Your task to perform on an android device: turn off location history Image 0: 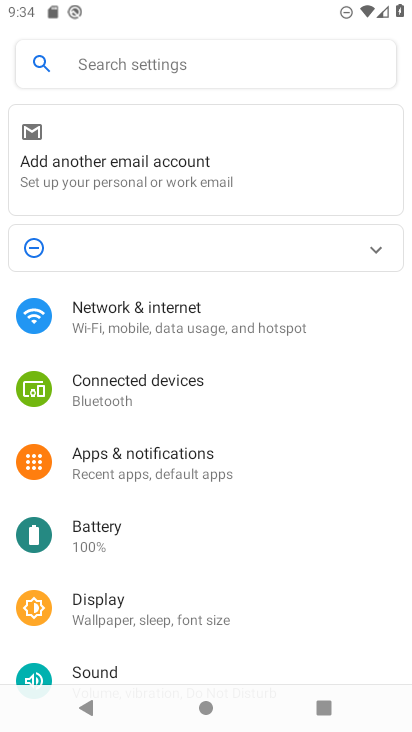
Step 0: drag from (196, 627) to (236, 156)
Your task to perform on an android device: turn off location history Image 1: 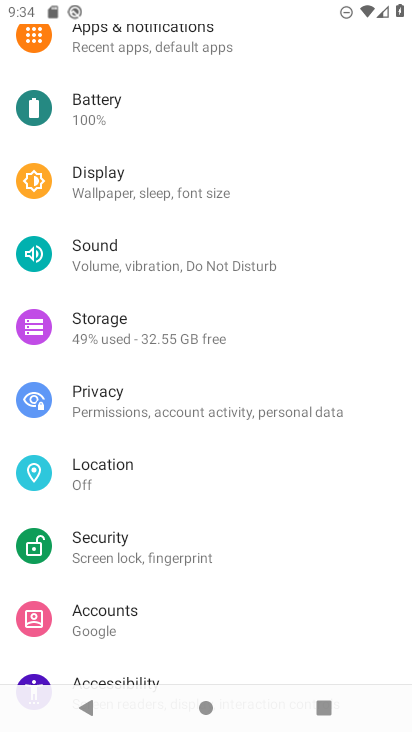
Step 1: click (143, 472)
Your task to perform on an android device: turn off location history Image 2: 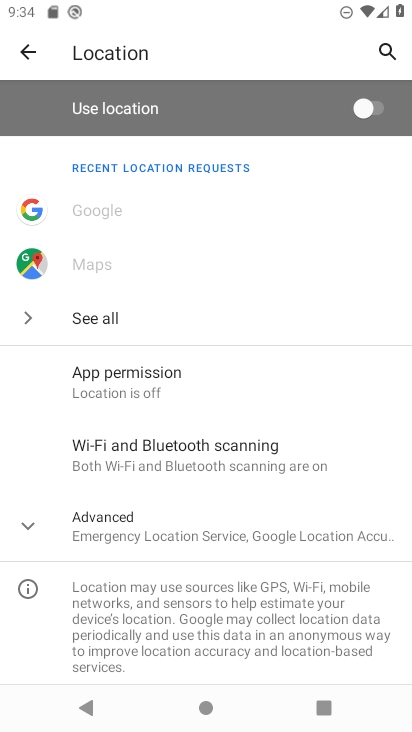
Step 2: click (110, 520)
Your task to perform on an android device: turn off location history Image 3: 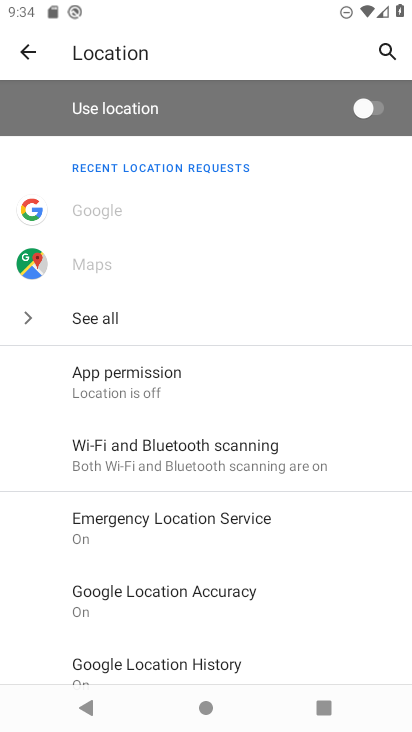
Step 3: drag from (226, 632) to (241, 300)
Your task to perform on an android device: turn off location history Image 4: 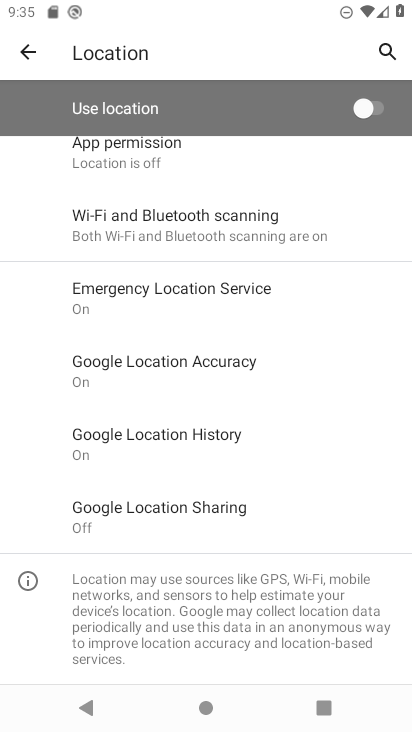
Step 4: click (215, 447)
Your task to perform on an android device: turn off location history Image 5: 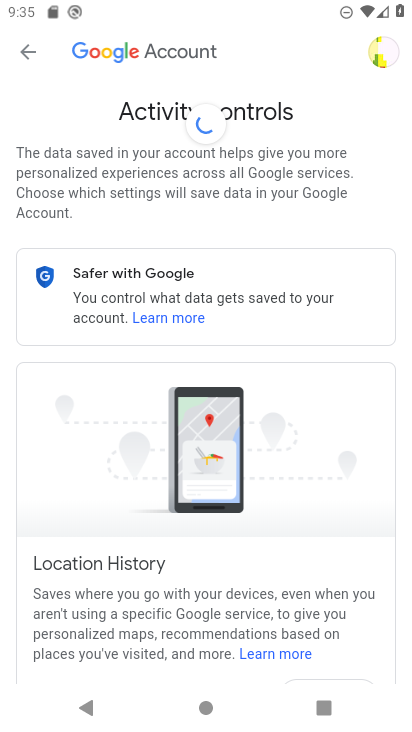
Step 5: drag from (240, 523) to (334, 73)
Your task to perform on an android device: turn off location history Image 6: 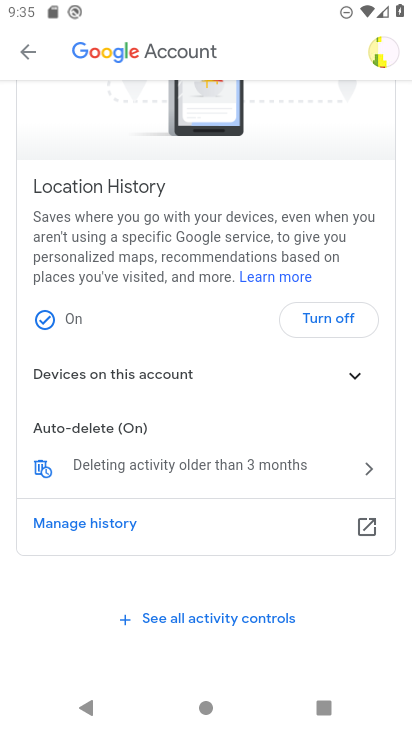
Step 6: click (300, 320)
Your task to perform on an android device: turn off location history Image 7: 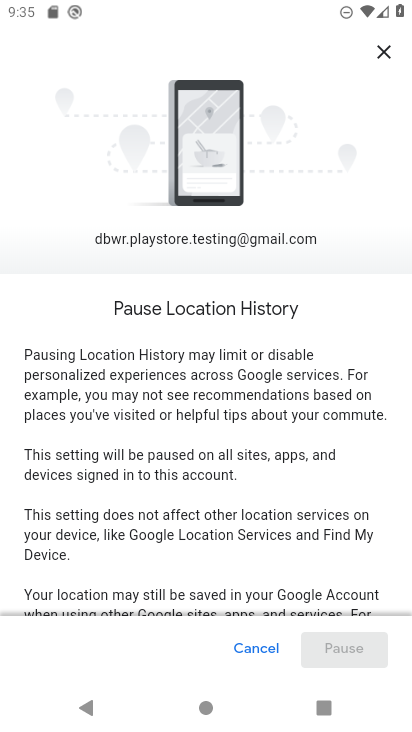
Step 7: drag from (227, 527) to (322, 179)
Your task to perform on an android device: turn off location history Image 8: 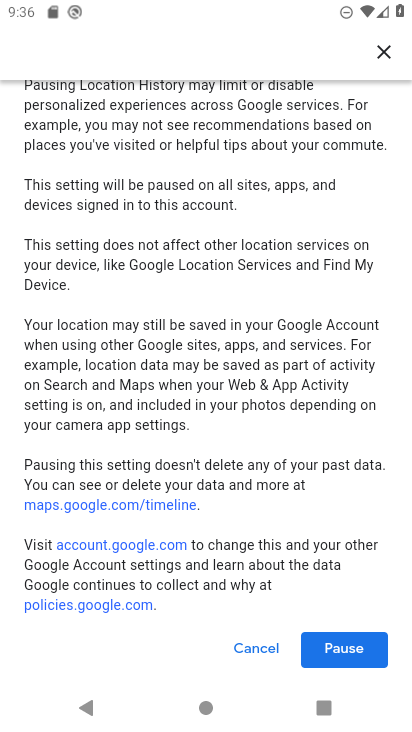
Step 8: click (347, 650)
Your task to perform on an android device: turn off location history Image 9: 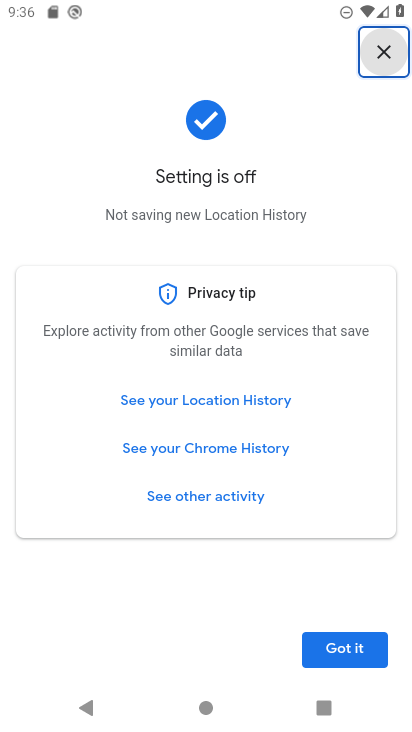
Step 9: click (363, 655)
Your task to perform on an android device: turn off location history Image 10: 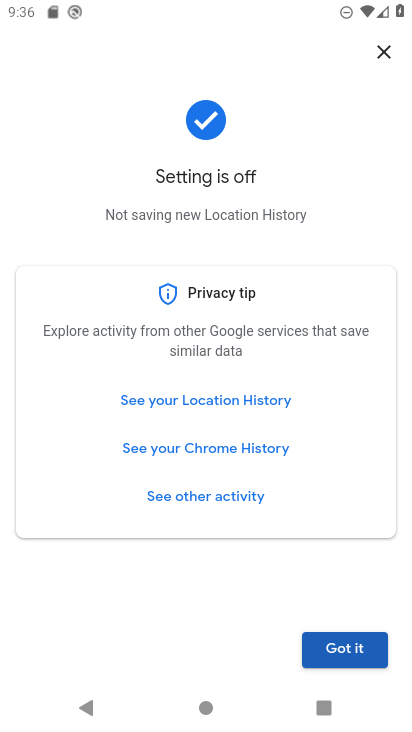
Step 10: task complete